Your task to perform on an android device: Set the phone to "Do not disturb". Image 0: 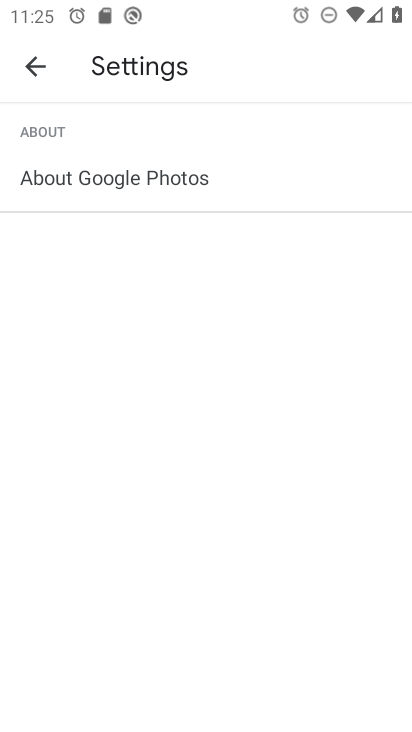
Step 0: press home button
Your task to perform on an android device: Set the phone to "Do not disturb". Image 1: 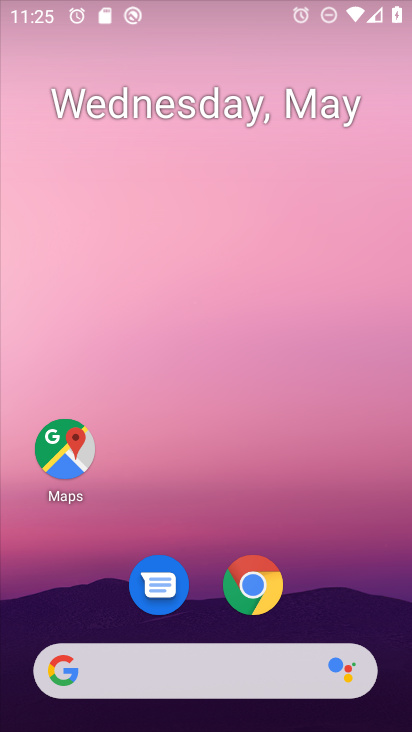
Step 1: drag from (209, 471) to (153, 5)
Your task to perform on an android device: Set the phone to "Do not disturb". Image 2: 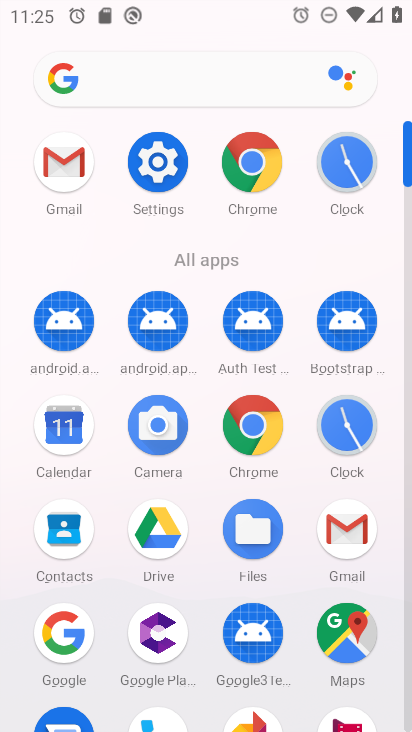
Step 2: click (163, 170)
Your task to perform on an android device: Set the phone to "Do not disturb". Image 3: 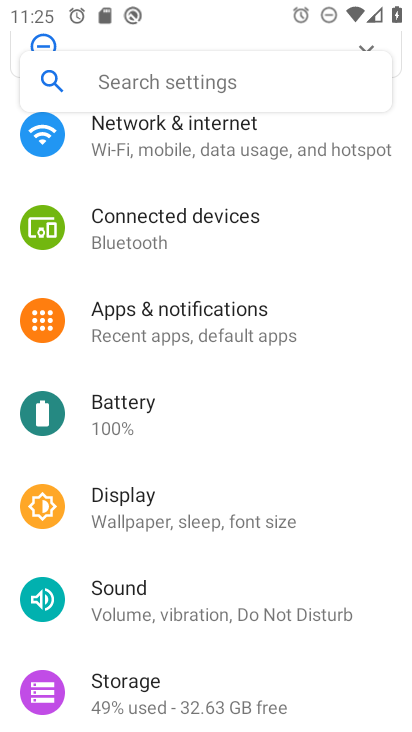
Step 3: click (241, 607)
Your task to perform on an android device: Set the phone to "Do not disturb". Image 4: 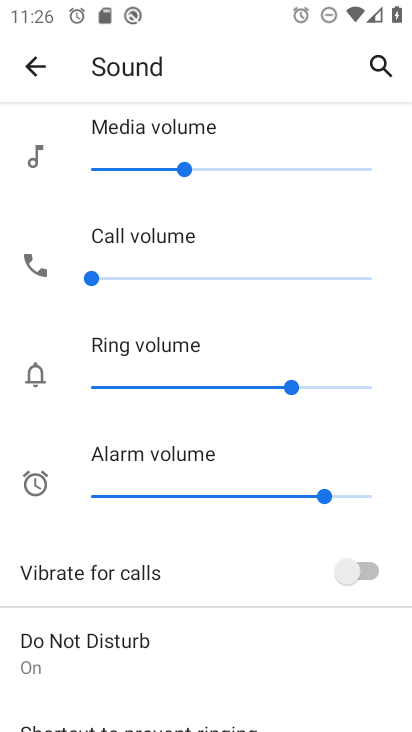
Step 4: task complete